Your task to perform on an android device: set the stopwatch Image 0: 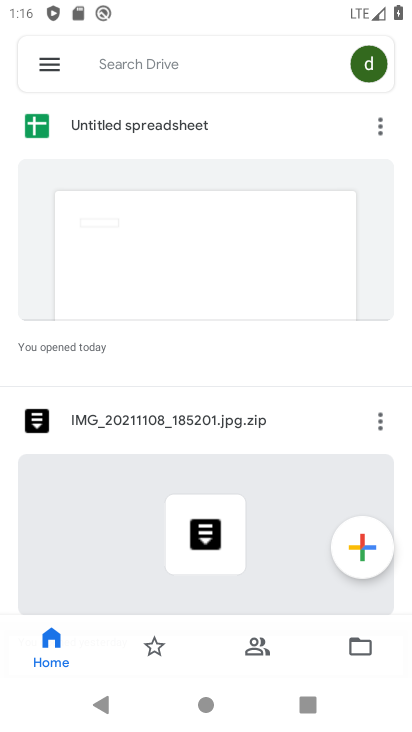
Step 0: press home button
Your task to perform on an android device: set the stopwatch Image 1: 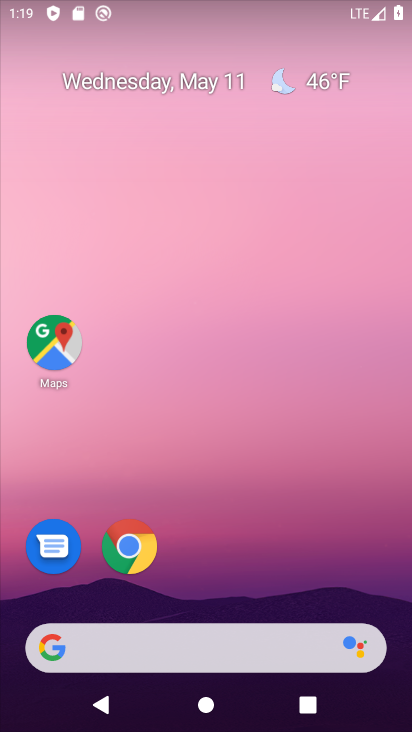
Step 1: drag from (245, 673) to (335, 178)
Your task to perform on an android device: set the stopwatch Image 2: 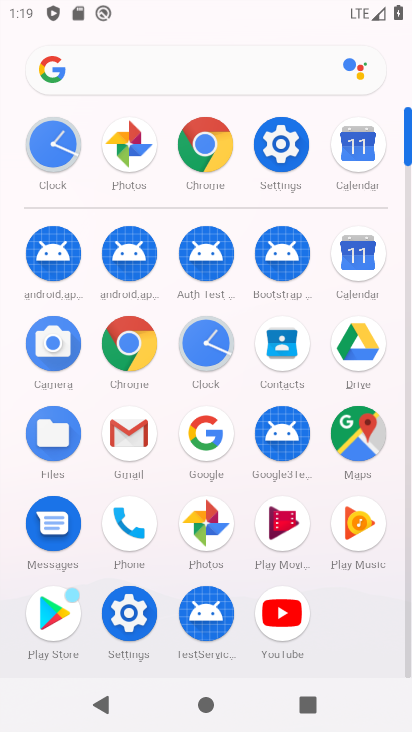
Step 2: click (195, 333)
Your task to perform on an android device: set the stopwatch Image 3: 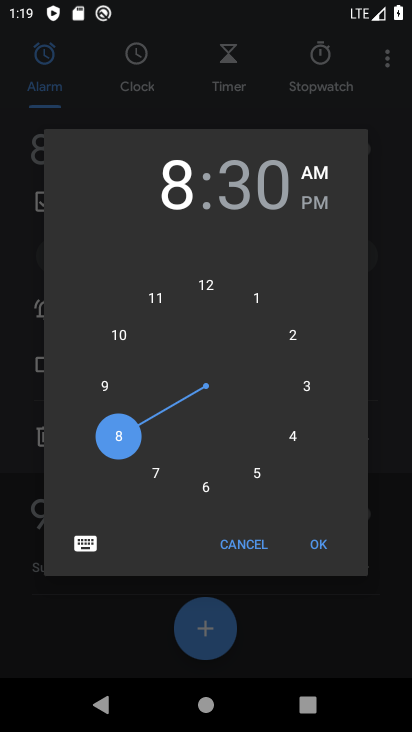
Step 3: click (215, 121)
Your task to perform on an android device: set the stopwatch Image 4: 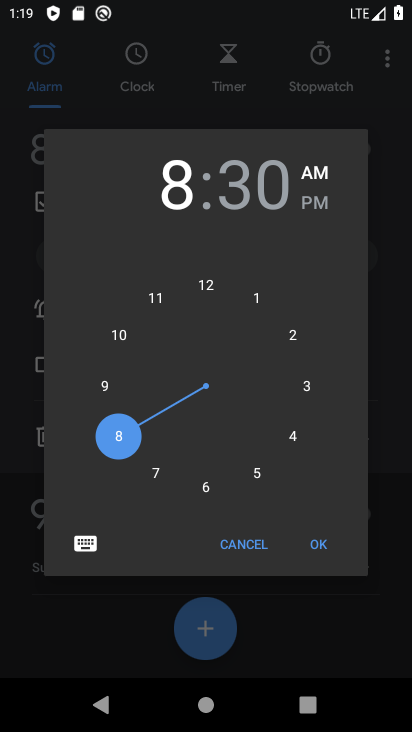
Step 4: click (321, 81)
Your task to perform on an android device: set the stopwatch Image 5: 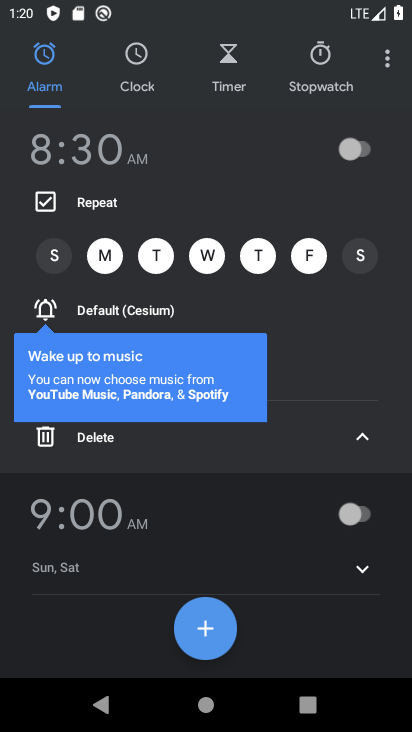
Step 5: click (320, 73)
Your task to perform on an android device: set the stopwatch Image 6: 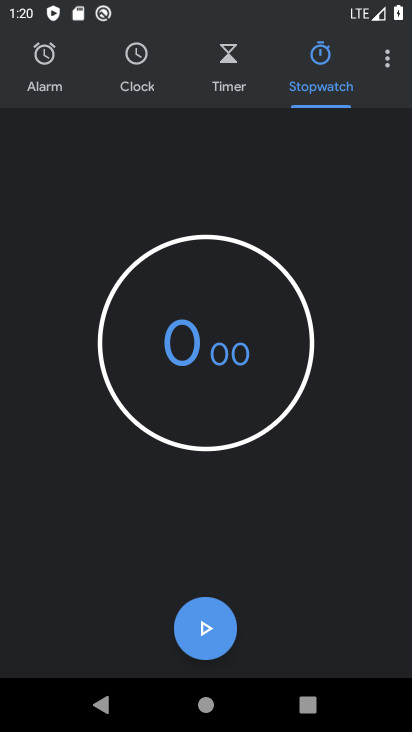
Step 6: click (204, 605)
Your task to perform on an android device: set the stopwatch Image 7: 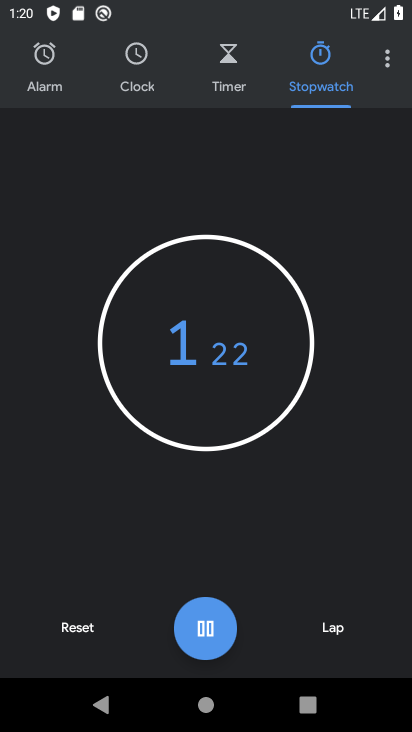
Step 7: task complete